Your task to perform on an android device: turn off javascript in the chrome app Image 0: 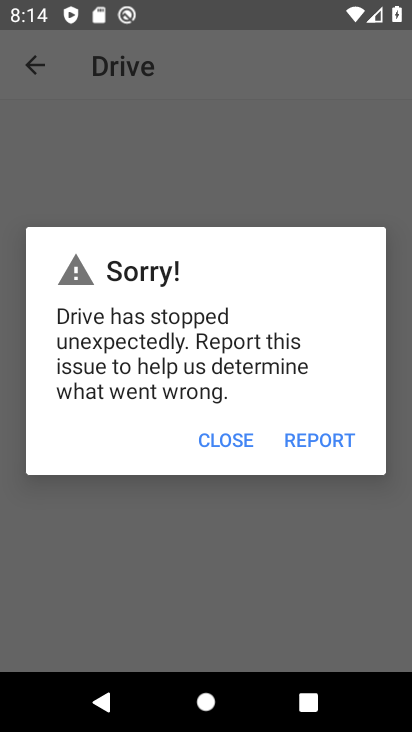
Step 0: press home button
Your task to perform on an android device: turn off javascript in the chrome app Image 1: 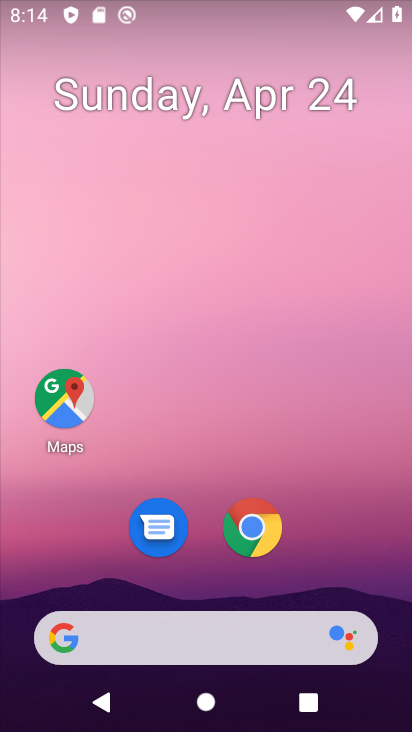
Step 1: click (246, 532)
Your task to perform on an android device: turn off javascript in the chrome app Image 2: 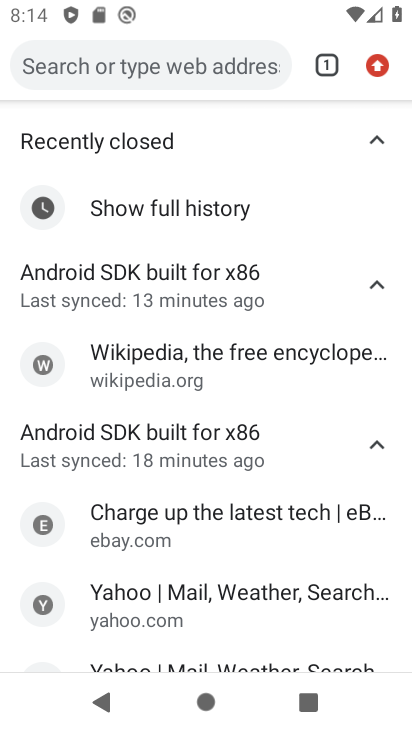
Step 2: click (371, 73)
Your task to perform on an android device: turn off javascript in the chrome app Image 3: 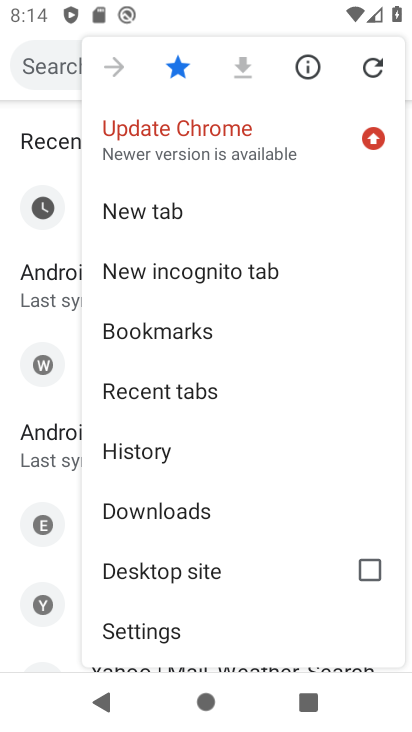
Step 3: click (220, 626)
Your task to perform on an android device: turn off javascript in the chrome app Image 4: 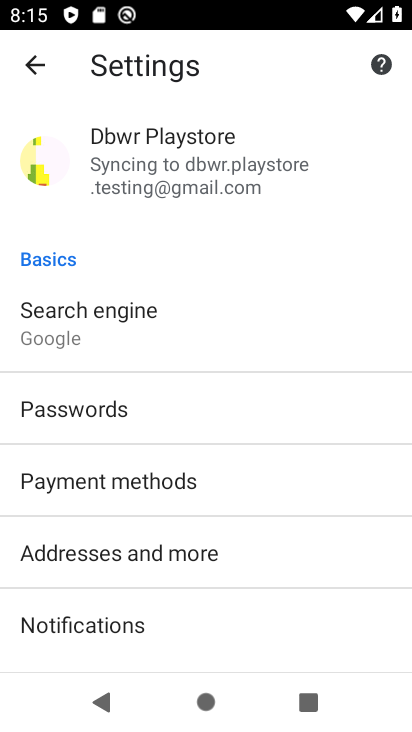
Step 4: drag from (204, 610) to (205, 215)
Your task to perform on an android device: turn off javascript in the chrome app Image 5: 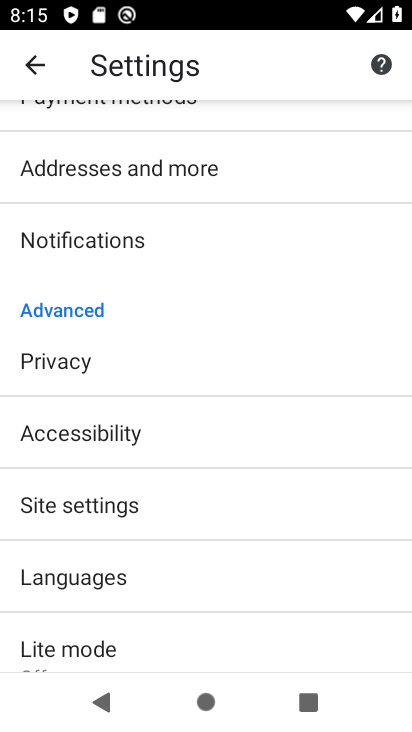
Step 5: click (78, 511)
Your task to perform on an android device: turn off javascript in the chrome app Image 6: 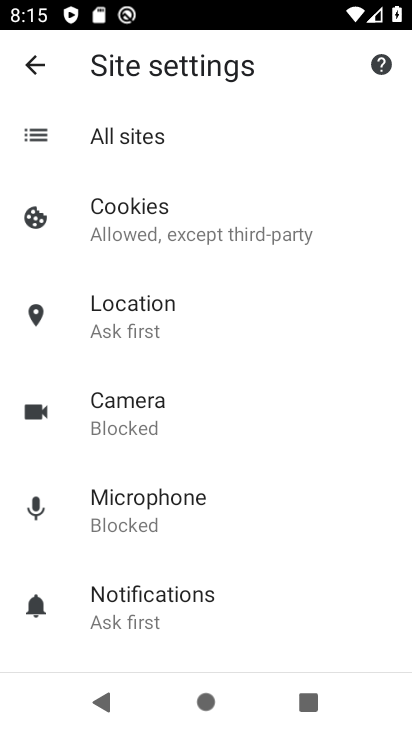
Step 6: drag from (236, 563) to (229, 302)
Your task to perform on an android device: turn off javascript in the chrome app Image 7: 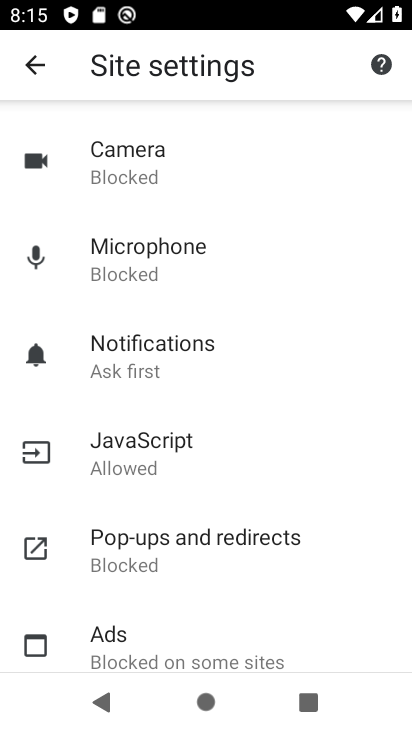
Step 7: click (178, 459)
Your task to perform on an android device: turn off javascript in the chrome app Image 8: 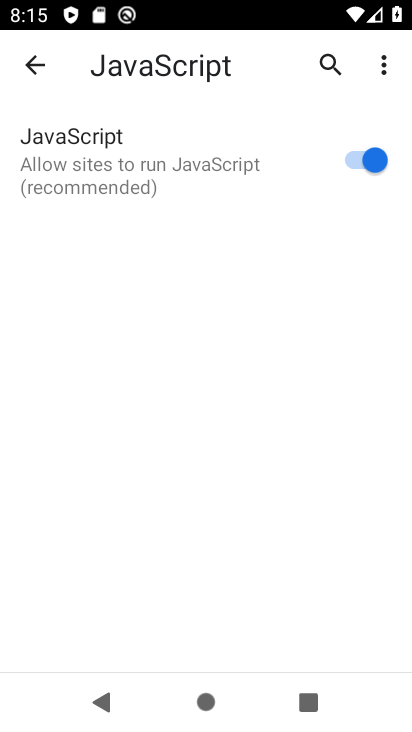
Step 8: click (352, 163)
Your task to perform on an android device: turn off javascript in the chrome app Image 9: 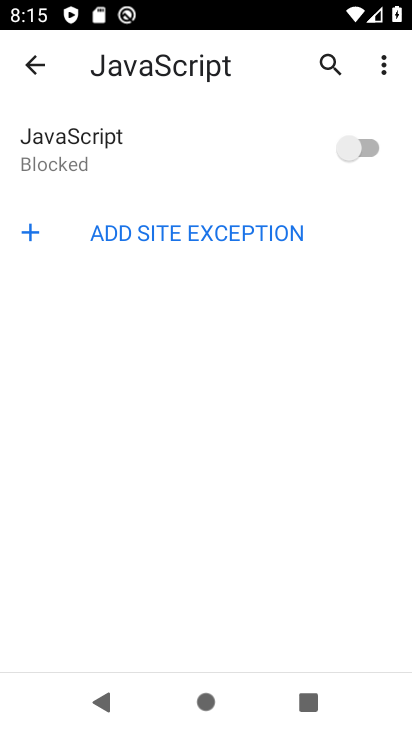
Step 9: task complete